Your task to perform on an android device: open the mobile data screen to see how much data has been used Image 0: 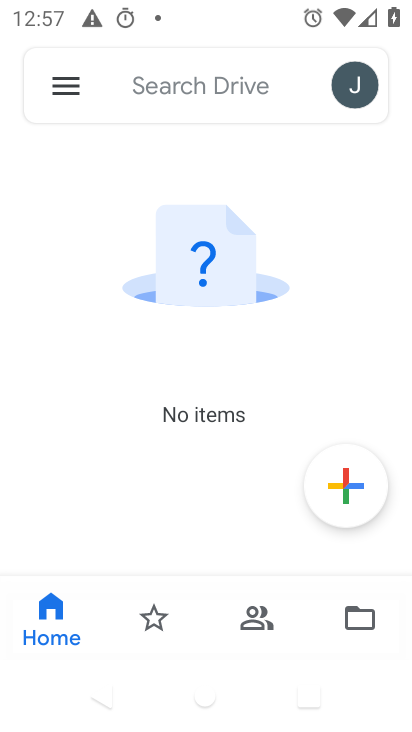
Step 0: press back button
Your task to perform on an android device: open the mobile data screen to see how much data has been used Image 1: 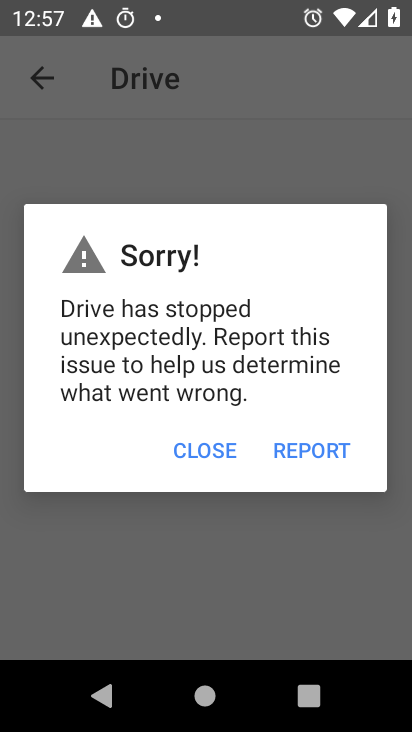
Step 1: press home button
Your task to perform on an android device: open the mobile data screen to see how much data has been used Image 2: 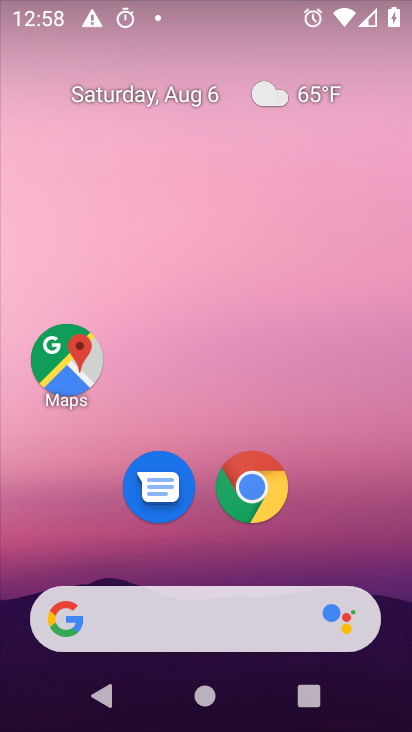
Step 2: drag from (173, 567) to (314, 29)
Your task to perform on an android device: open the mobile data screen to see how much data has been used Image 3: 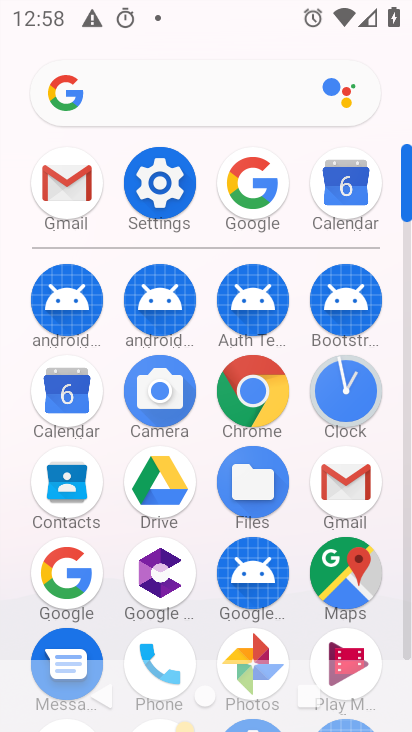
Step 3: click (149, 195)
Your task to perform on an android device: open the mobile data screen to see how much data has been used Image 4: 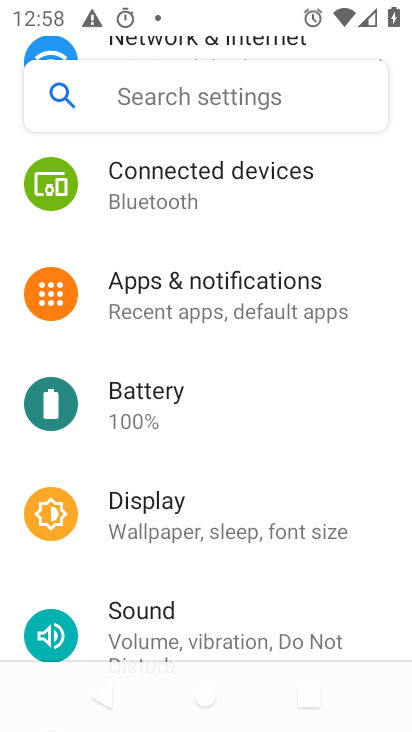
Step 4: drag from (232, 191) to (198, 730)
Your task to perform on an android device: open the mobile data screen to see how much data has been used Image 5: 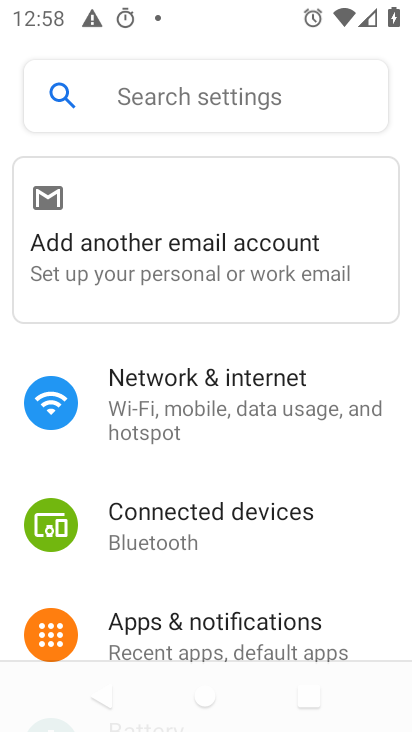
Step 5: click (227, 406)
Your task to perform on an android device: open the mobile data screen to see how much data has been used Image 6: 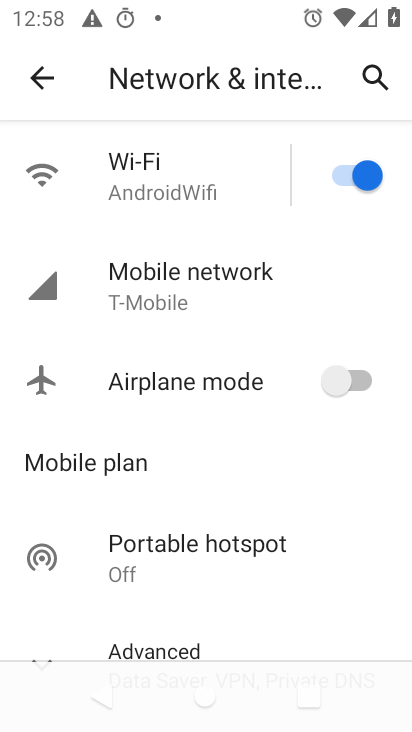
Step 6: click (148, 258)
Your task to perform on an android device: open the mobile data screen to see how much data has been used Image 7: 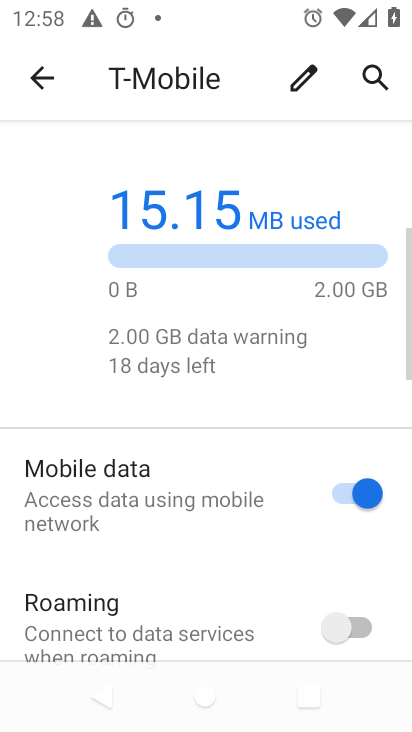
Step 7: drag from (247, 398) to (282, 181)
Your task to perform on an android device: open the mobile data screen to see how much data has been used Image 8: 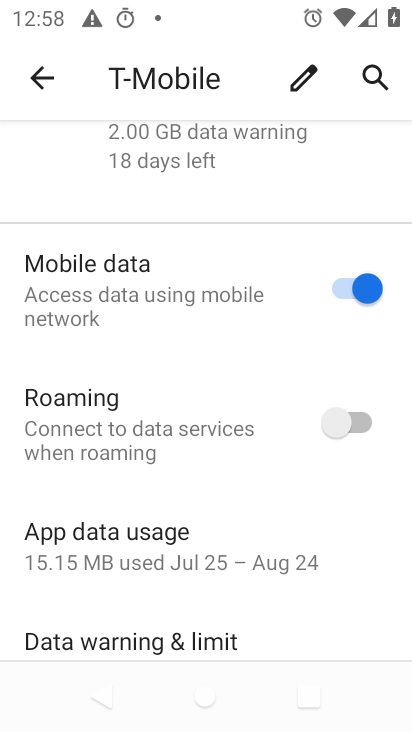
Step 8: click (150, 539)
Your task to perform on an android device: open the mobile data screen to see how much data has been used Image 9: 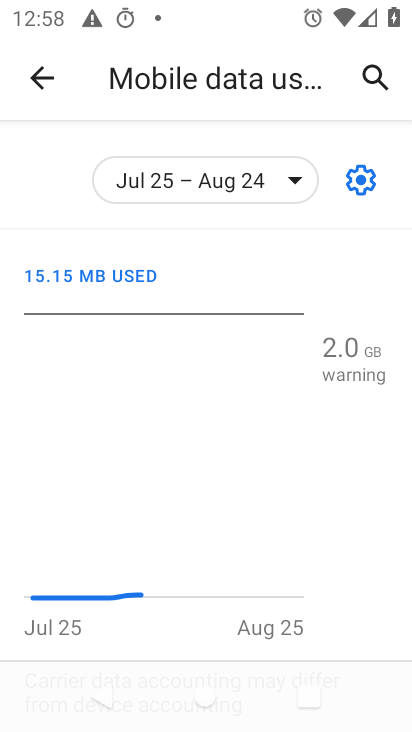
Step 9: task complete